Your task to perform on an android device: Search for pizza restaurants on Maps Image 0: 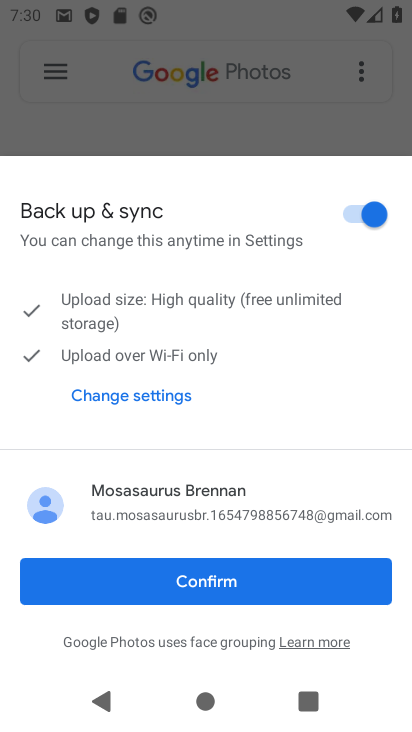
Step 0: press home button
Your task to perform on an android device: Search for pizza restaurants on Maps Image 1: 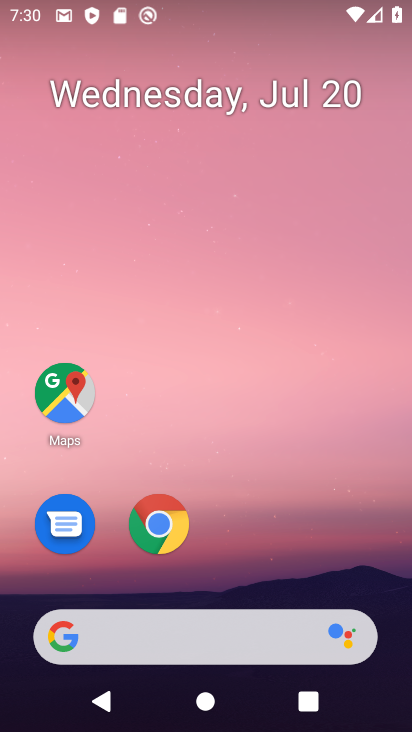
Step 1: click (72, 405)
Your task to perform on an android device: Search for pizza restaurants on Maps Image 2: 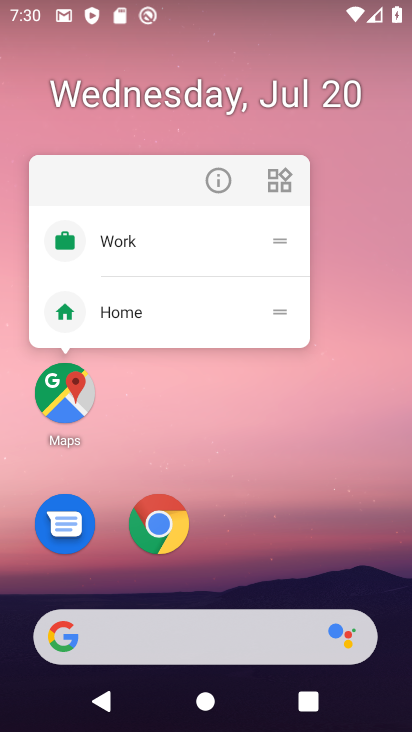
Step 2: click (62, 395)
Your task to perform on an android device: Search for pizza restaurants on Maps Image 3: 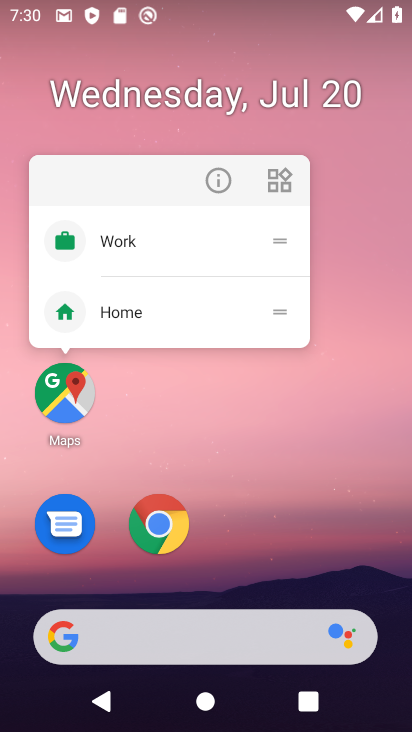
Step 3: click (62, 395)
Your task to perform on an android device: Search for pizza restaurants on Maps Image 4: 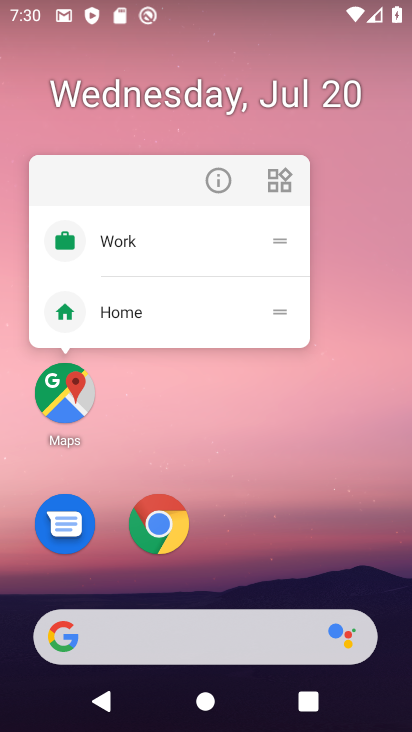
Step 4: click (65, 383)
Your task to perform on an android device: Search for pizza restaurants on Maps Image 5: 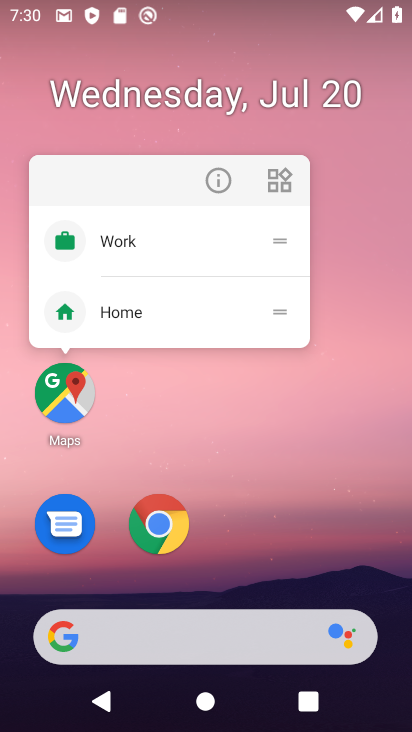
Step 5: click (73, 403)
Your task to perform on an android device: Search for pizza restaurants on Maps Image 6: 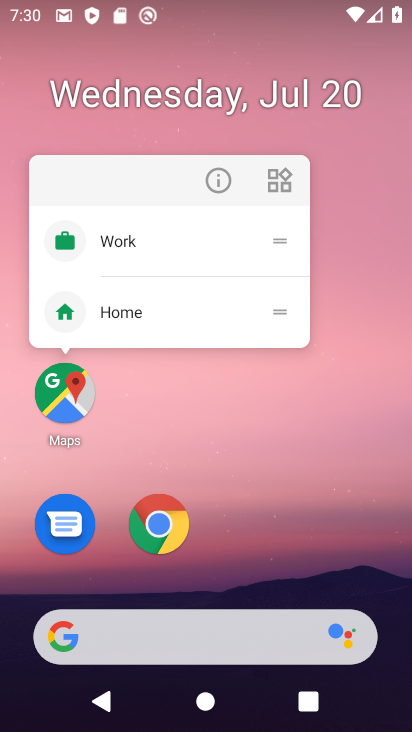
Step 6: click (73, 403)
Your task to perform on an android device: Search for pizza restaurants on Maps Image 7: 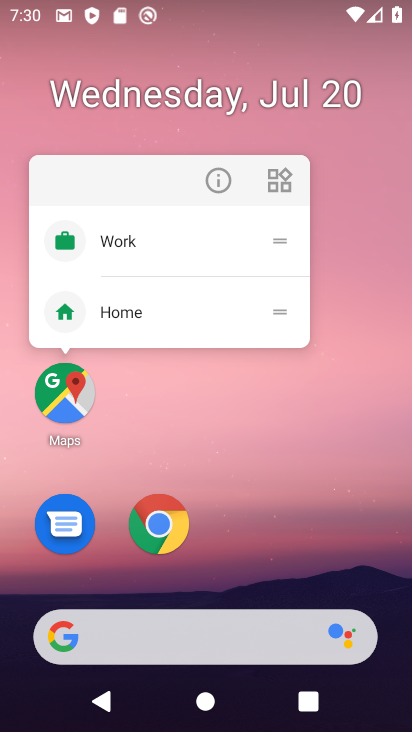
Step 7: click (71, 402)
Your task to perform on an android device: Search for pizza restaurants on Maps Image 8: 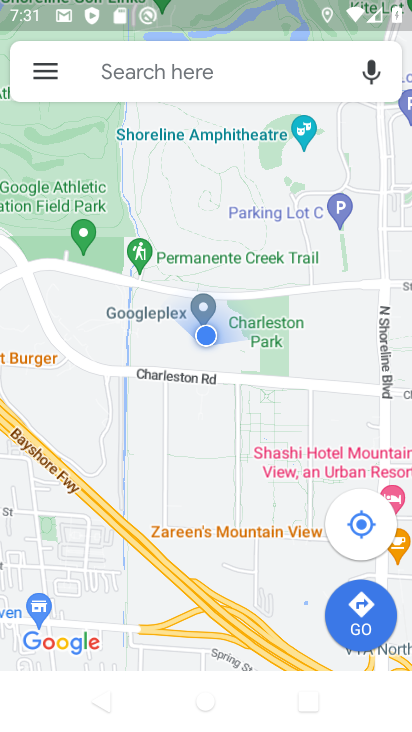
Step 8: click (199, 78)
Your task to perform on an android device: Search for pizza restaurants on Maps Image 9: 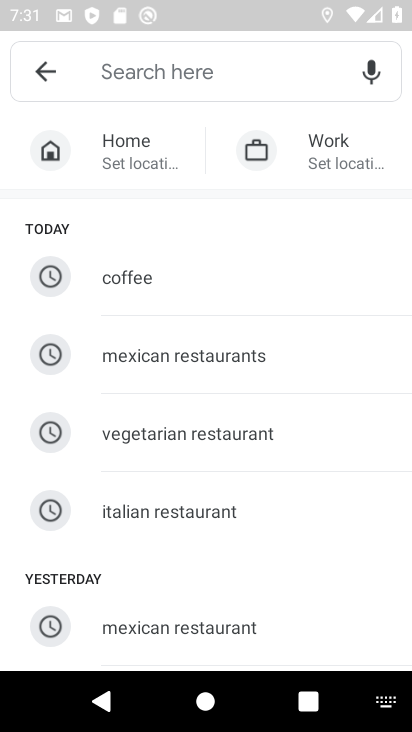
Step 9: drag from (252, 560) to (236, 331)
Your task to perform on an android device: Search for pizza restaurants on Maps Image 10: 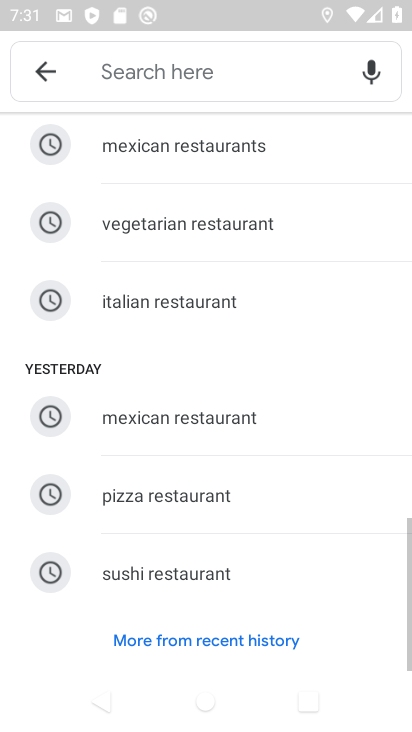
Step 10: click (202, 496)
Your task to perform on an android device: Search for pizza restaurants on Maps Image 11: 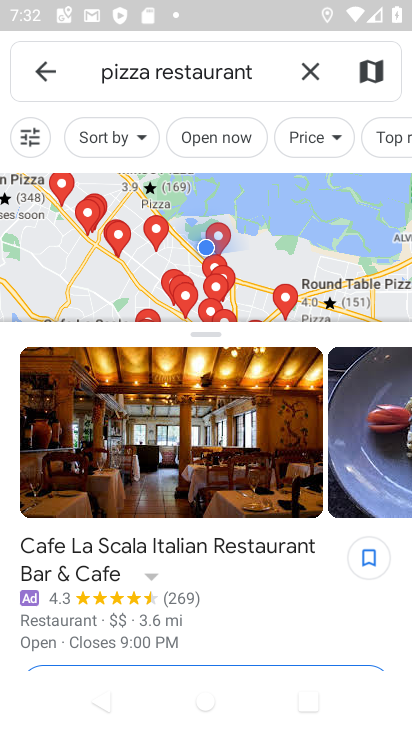
Step 11: task complete